Your task to perform on an android device: turn on the 24-hour format for clock Image 0: 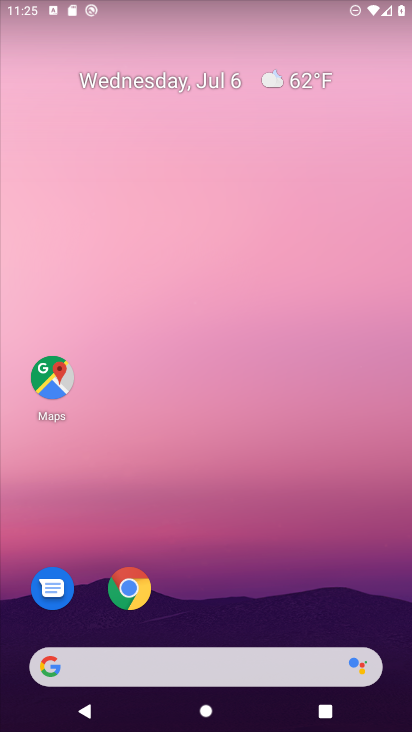
Step 0: drag from (363, 610) to (338, 173)
Your task to perform on an android device: turn on the 24-hour format for clock Image 1: 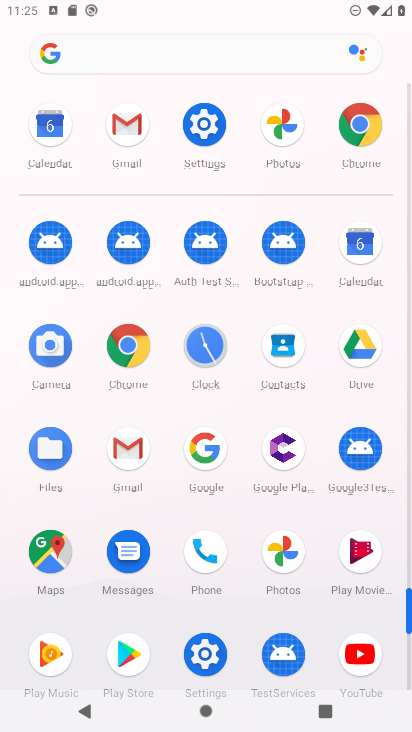
Step 1: click (204, 346)
Your task to perform on an android device: turn on the 24-hour format for clock Image 2: 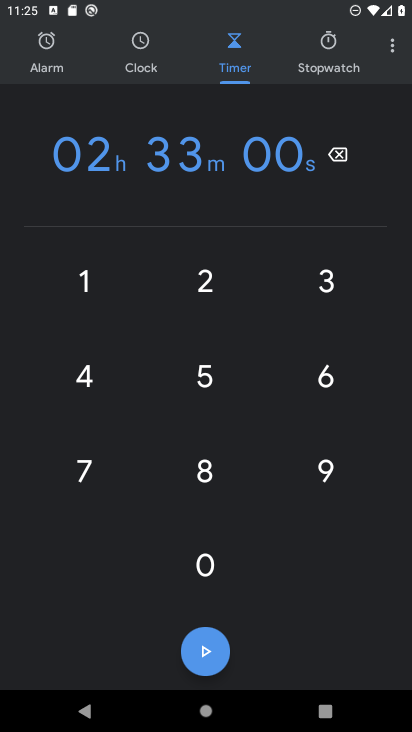
Step 2: click (392, 52)
Your task to perform on an android device: turn on the 24-hour format for clock Image 3: 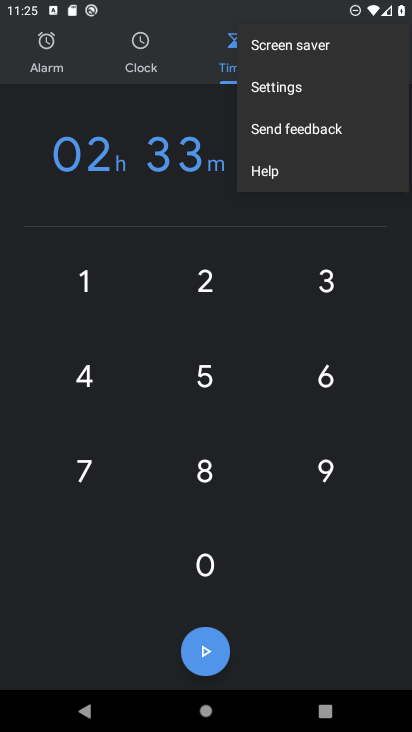
Step 3: click (270, 91)
Your task to perform on an android device: turn on the 24-hour format for clock Image 4: 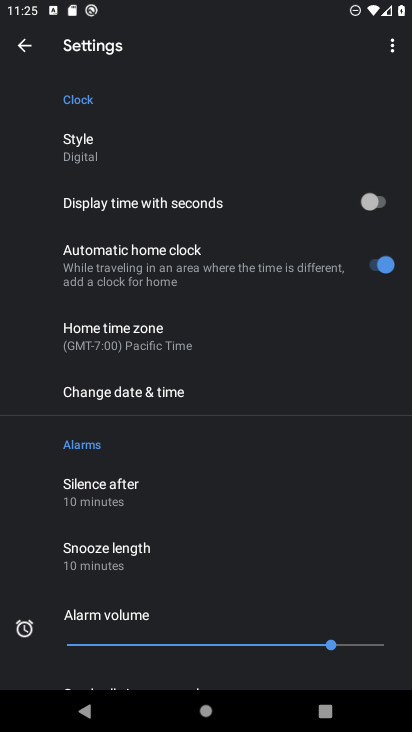
Step 4: click (137, 396)
Your task to perform on an android device: turn on the 24-hour format for clock Image 5: 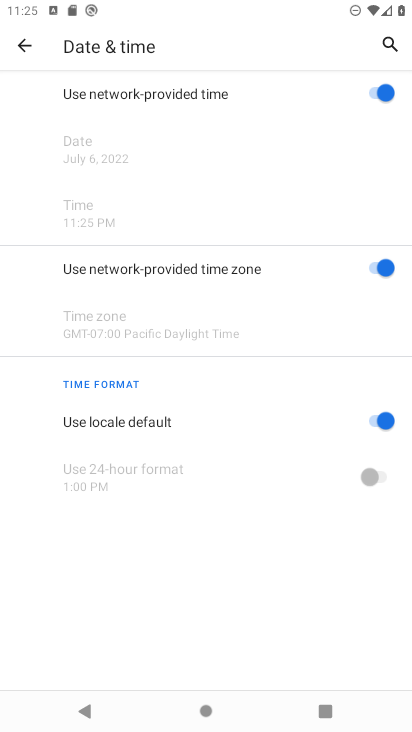
Step 5: click (373, 422)
Your task to perform on an android device: turn on the 24-hour format for clock Image 6: 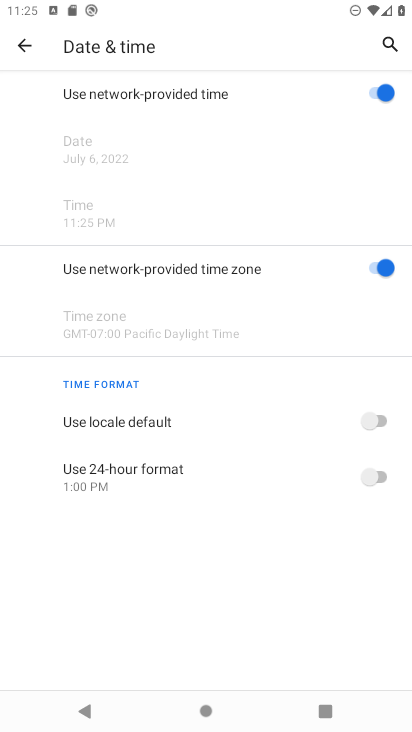
Step 6: click (380, 479)
Your task to perform on an android device: turn on the 24-hour format for clock Image 7: 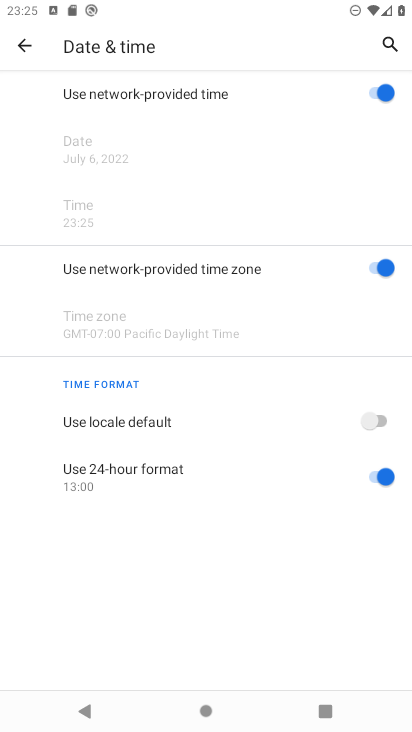
Step 7: task complete